Your task to perform on an android device: Search for seafood restaurants on Google Maps Image 0: 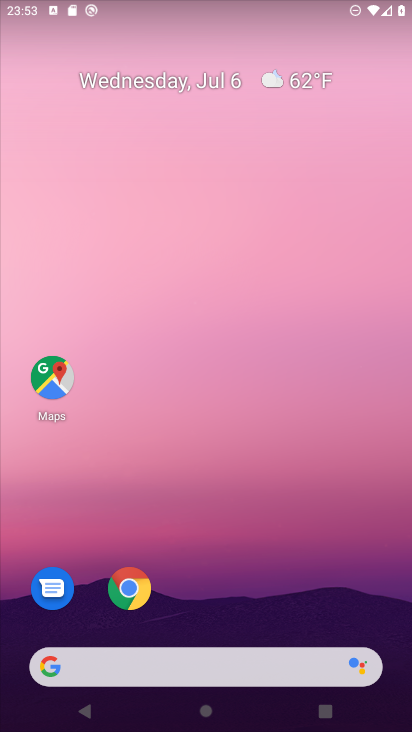
Step 0: click (49, 377)
Your task to perform on an android device: Search for seafood restaurants on Google Maps Image 1: 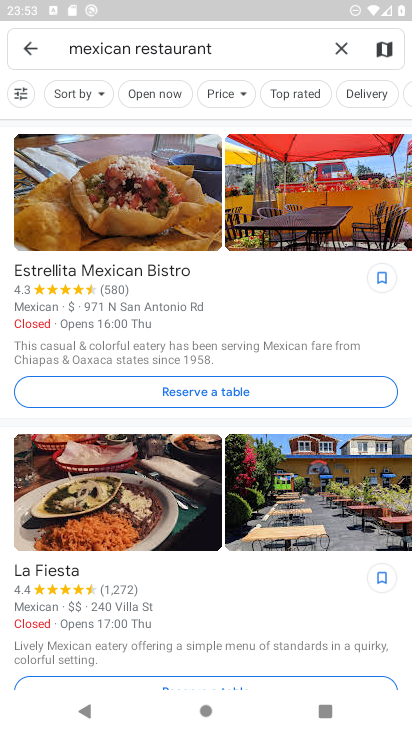
Step 1: click (343, 44)
Your task to perform on an android device: Search for seafood restaurants on Google Maps Image 2: 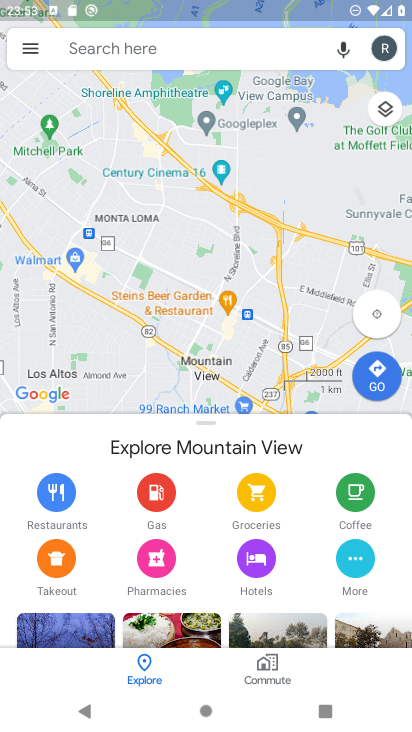
Step 2: click (105, 50)
Your task to perform on an android device: Search for seafood restaurants on Google Maps Image 3: 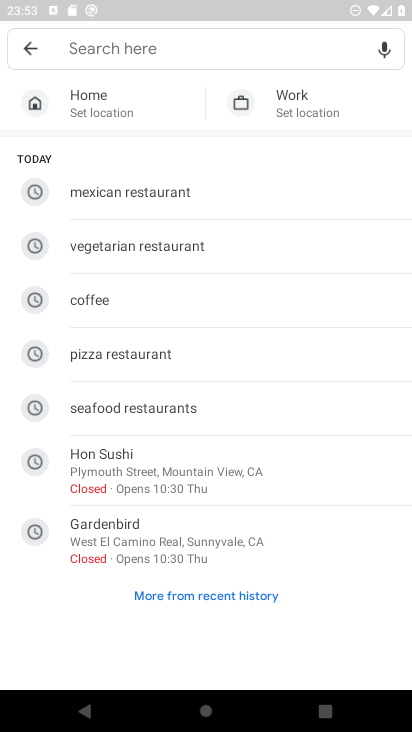
Step 3: type "seafood restaurants"
Your task to perform on an android device: Search for seafood restaurants on Google Maps Image 4: 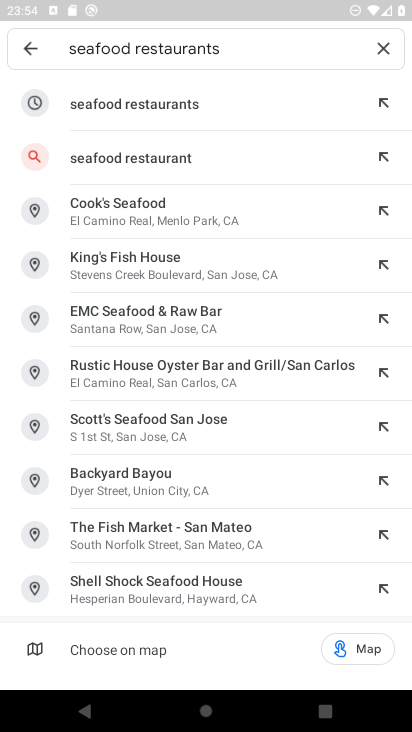
Step 4: click (119, 100)
Your task to perform on an android device: Search for seafood restaurants on Google Maps Image 5: 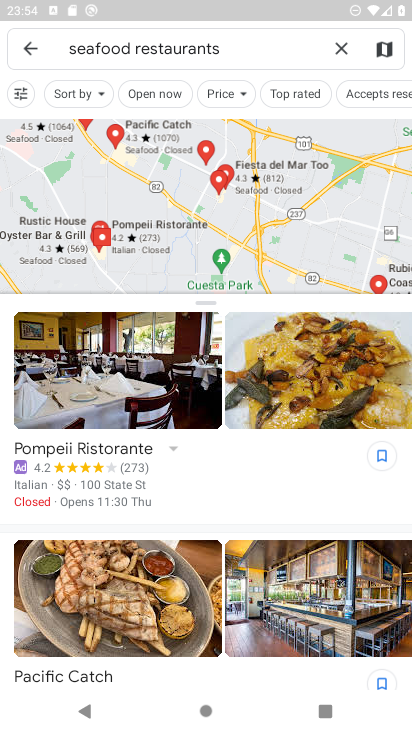
Step 5: task complete